Your task to perform on an android device: set default search engine in the chrome app Image 0: 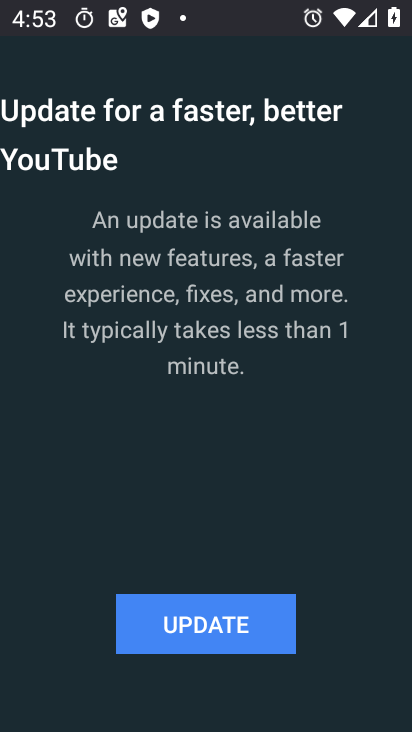
Step 0: press home button
Your task to perform on an android device: set default search engine in the chrome app Image 1: 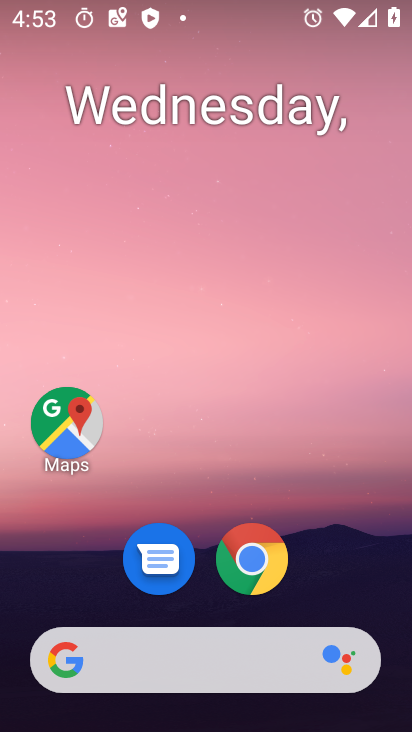
Step 1: click (266, 566)
Your task to perform on an android device: set default search engine in the chrome app Image 2: 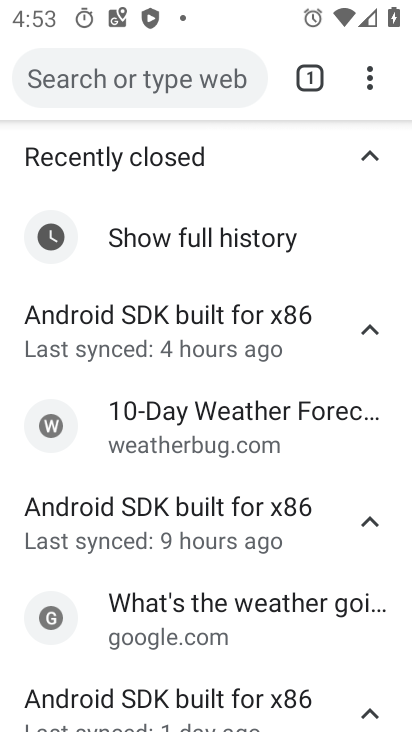
Step 2: click (362, 77)
Your task to perform on an android device: set default search engine in the chrome app Image 3: 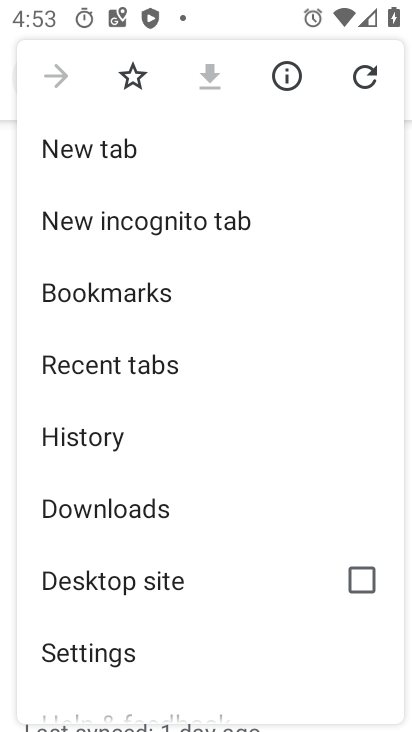
Step 3: click (125, 644)
Your task to perform on an android device: set default search engine in the chrome app Image 4: 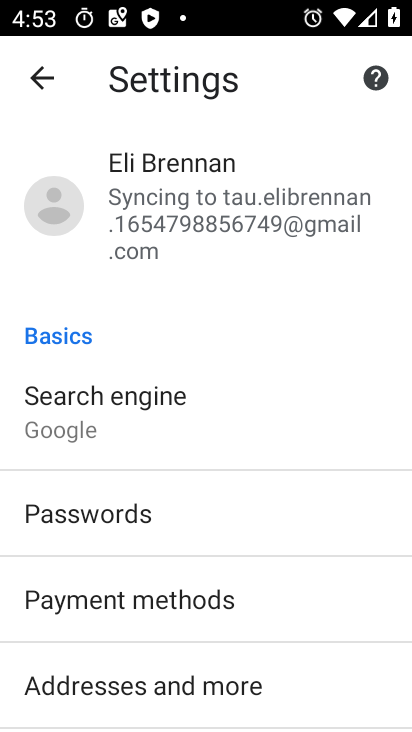
Step 4: click (146, 402)
Your task to perform on an android device: set default search engine in the chrome app Image 5: 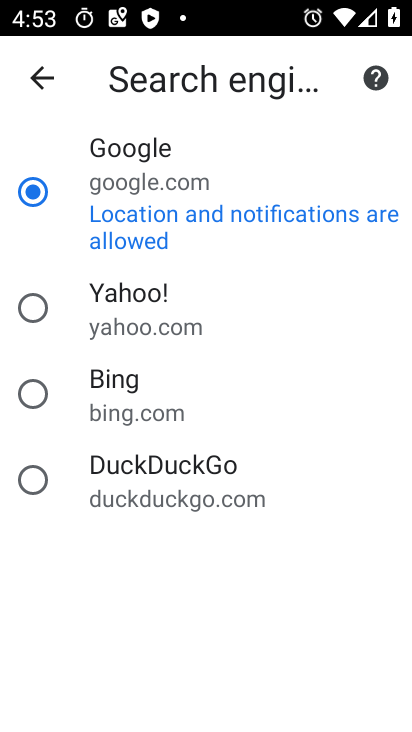
Step 5: click (139, 320)
Your task to perform on an android device: set default search engine in the chrome app Image 6: 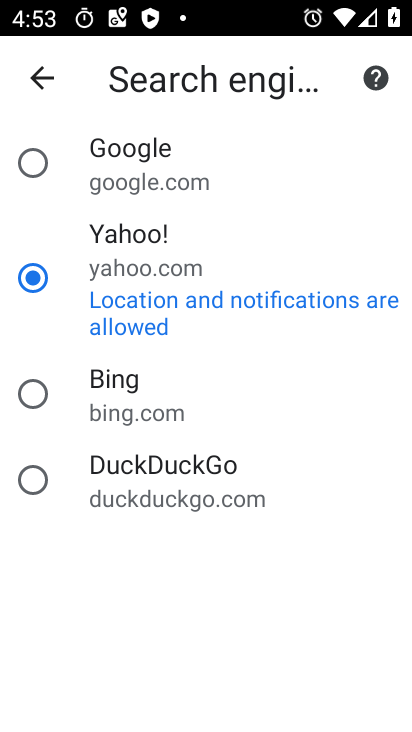
Step 6: task complete